Your task to perform on an android device: Go to accessibility settings Image 0: 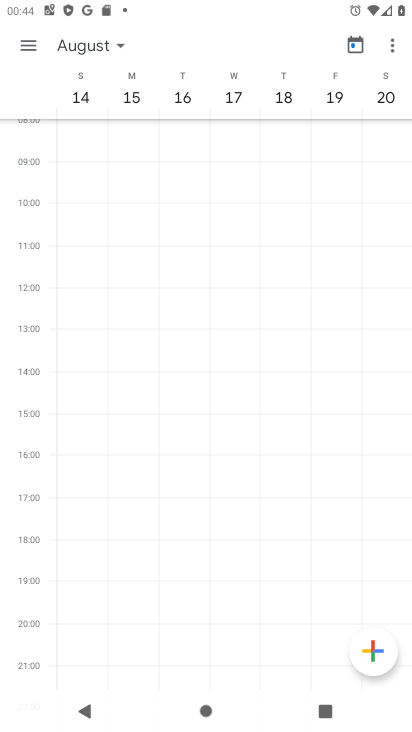
Step 0: press home button
Your task to perform on an android device: Go to accessibility settings Image 1: 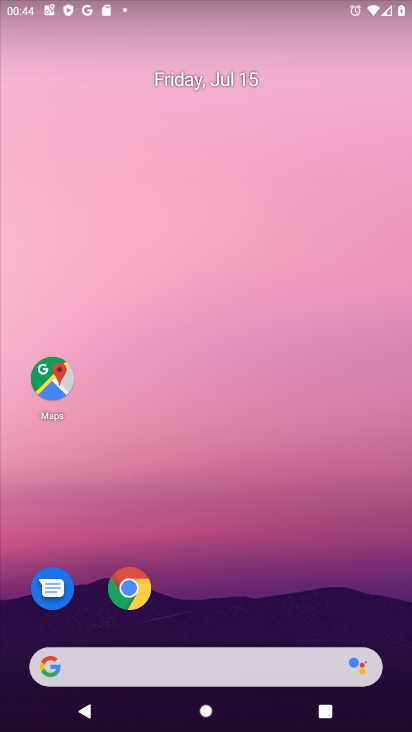
Step 1: drag from (225, 672) to (334, 178)
Your task to perform on an android device: Go to accessibility settings Image 2: 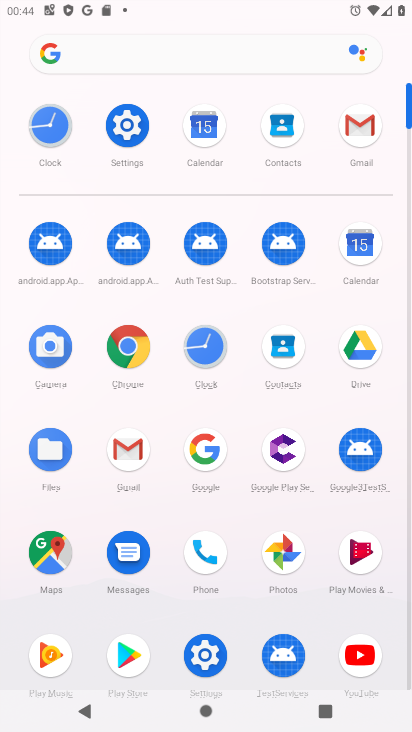
Step 2: click (204, 655)
Your task to perform on an android device: Go to accessibility settings Image 3: 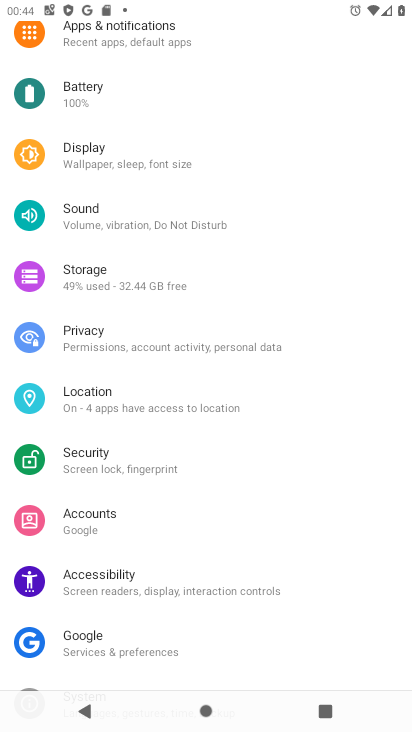
Step 3: click (114, 564)
Your task to perform on an android device: Go to accessibility settings Image 4: 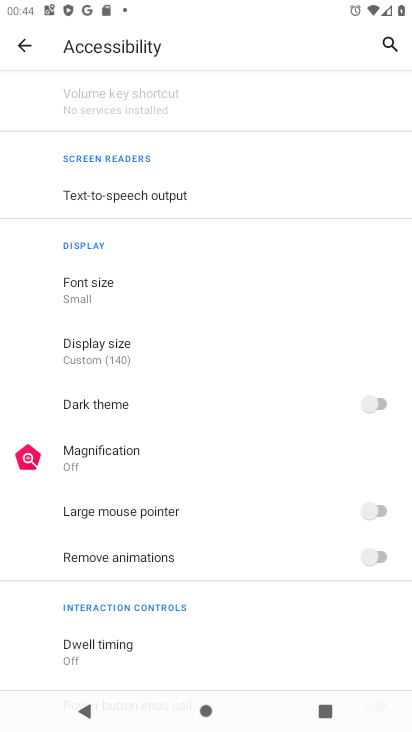
Step 4: task complete